Your task to perform on an android device: toggle wifi Image 0: 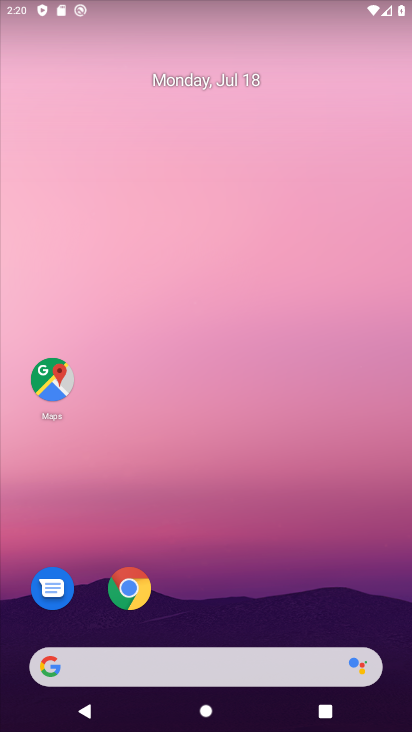
Step 0: drag from (262, 568) to (303, 6)
Your task to perform on an android device: toggle wifi Image 1: 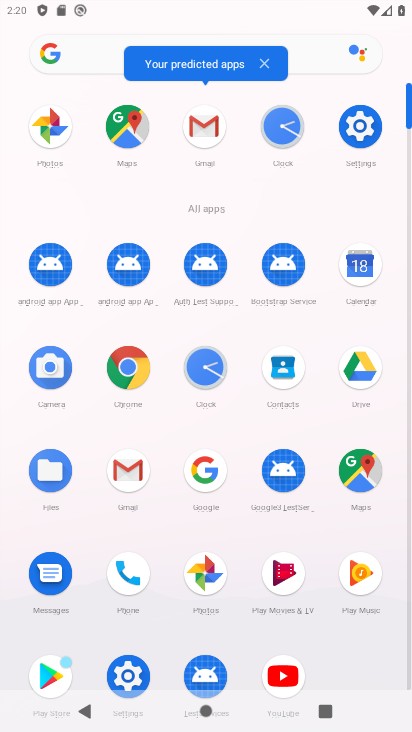
Step 1: click (345, 144)
Your task to perform on an android device: toggle wifi Image 2: 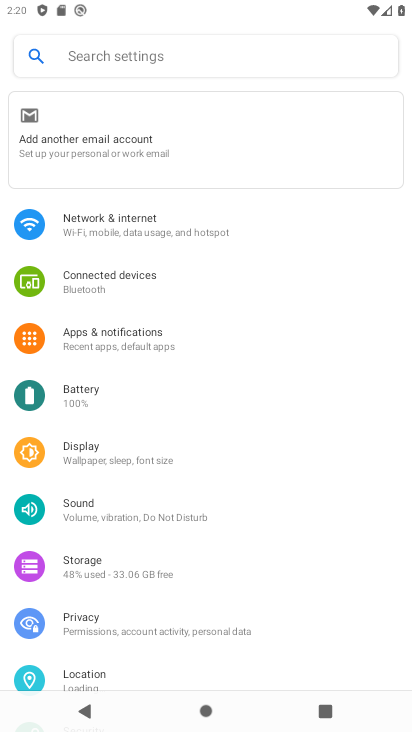
Step 2: click (210, 221)
Your task to perform on an android device: toggle wifi Image 3: 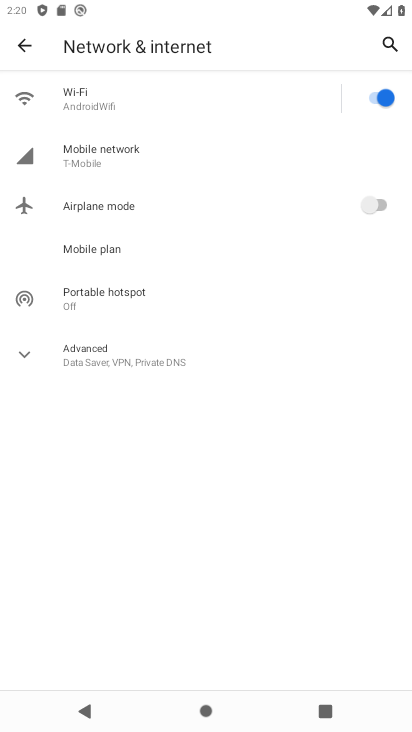
Step 3: click (389, 101)
Your task to perform on an android device: toggle wifi Image 4: 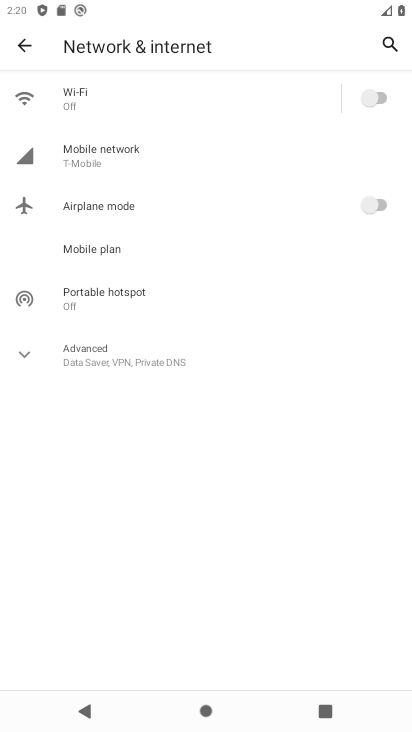
Step 4: task complete